Your task to perform on an android device: turn off data saver in the chrome app Image 0: 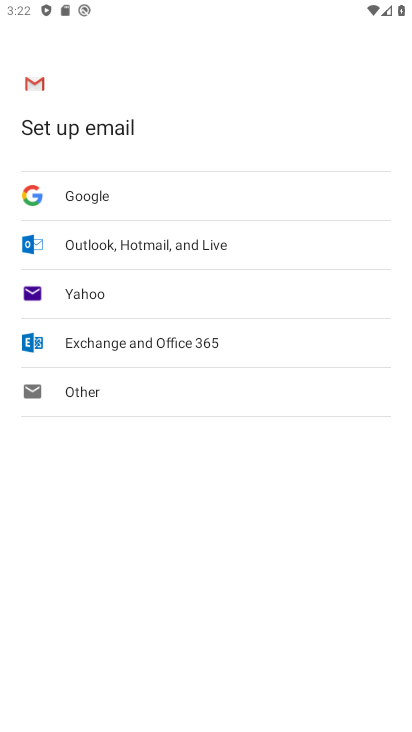
Step 0: press home button
Your task to perform on an android device: turn off data saver in the chrome app Image 1: 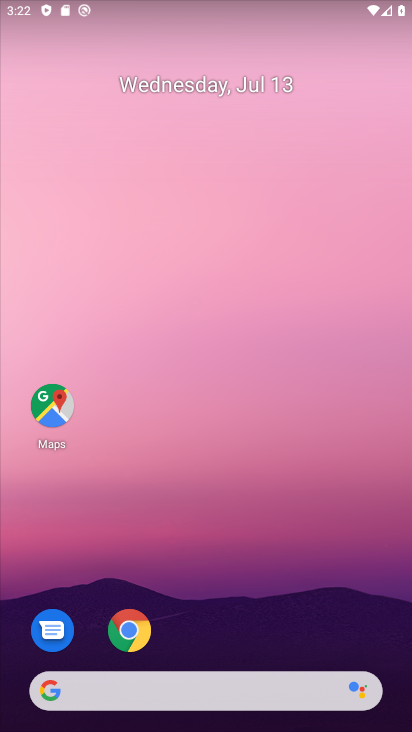
Step 1: click (125, 629)
Your task to perform on an android device: turn off data saver in the chrome app Image 2: 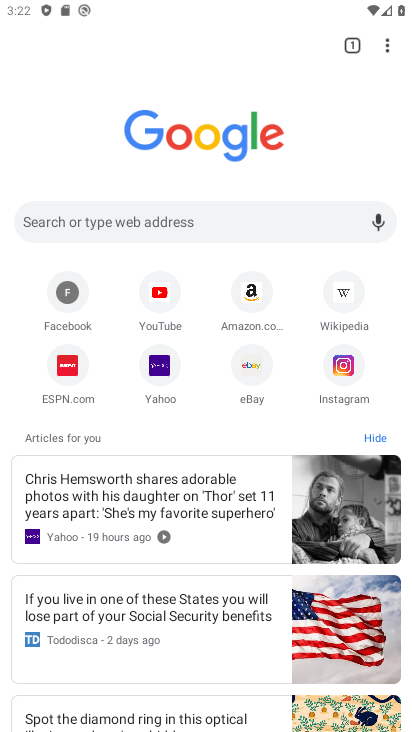
Step 2: click (387, 42)
Your task to perform on an android device: turn off data saver in the chrome app Image 3: 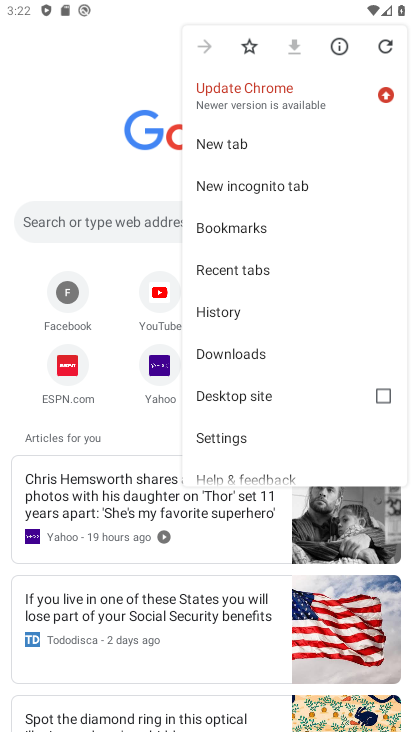
Step 3: click (235, 437)
Your task to perform on an android device: turn off data saver in the chrome app Image 4: 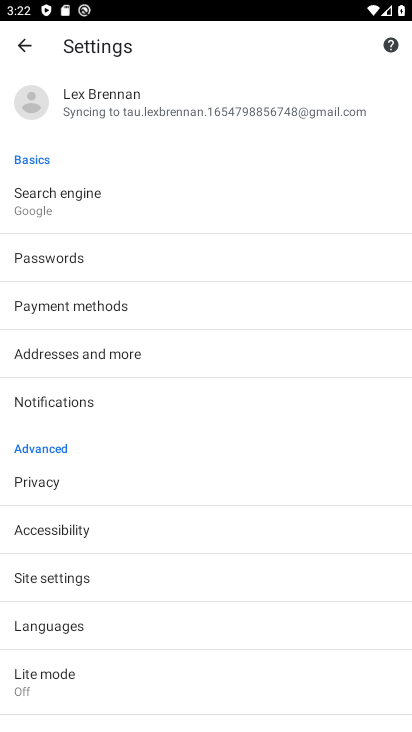
Step 4: drag from (200, 630) to (206, 261)
Your task to perform on an android device: turn off data saver in the chrome app Image 5: 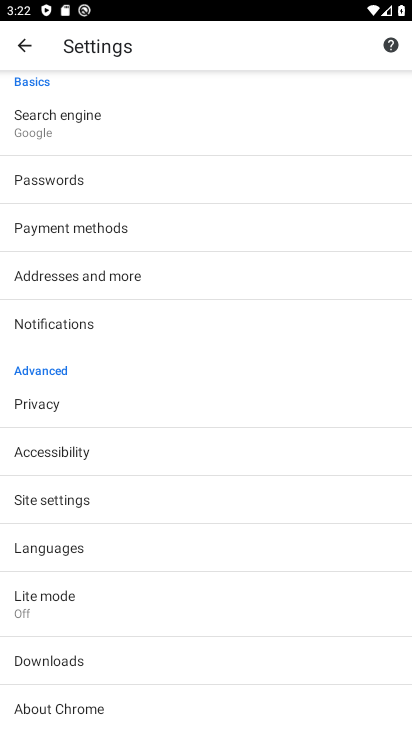
Step 5: click (42, 599)
Your task to perform on an android device: turn off data saver in the chrome app Image 6: 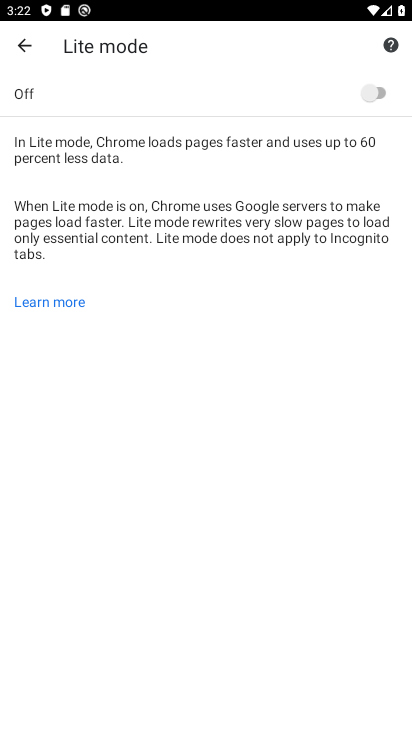
Step 6: task complete